Your task to perform on an android device: What is the recent news? Image 0: 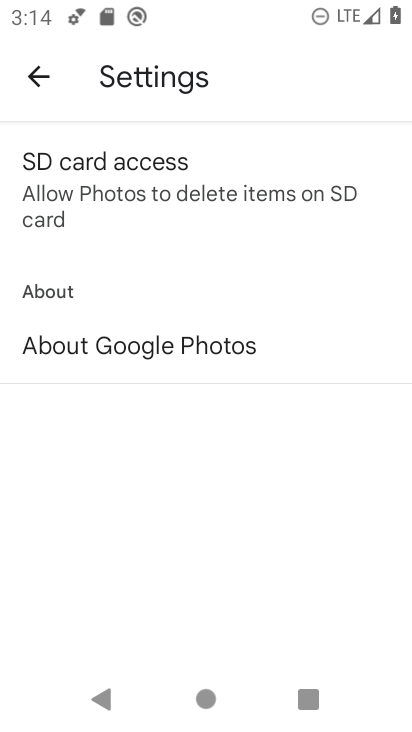
Step 0: press home button
Your task to perform on an android device: What is the recent news? Image 1: 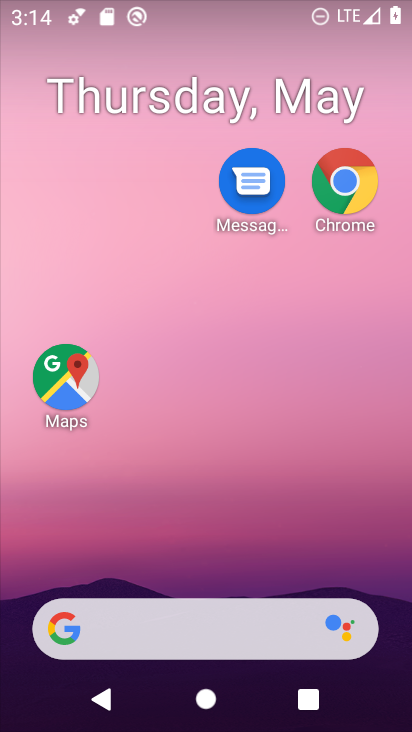
Step 1: drag from (215, 617) to (328, 28)
Your task to perform on an android device: What is the recent news? Image 2: 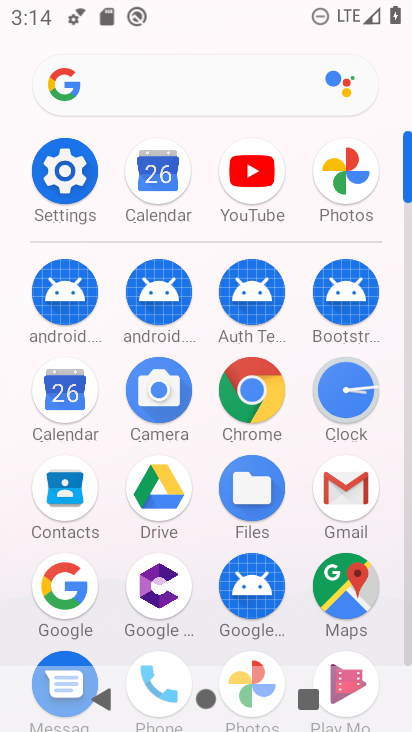
Step 2: click (254, 396)
Your task to perform on an android device: What is the recent news? Image 3: 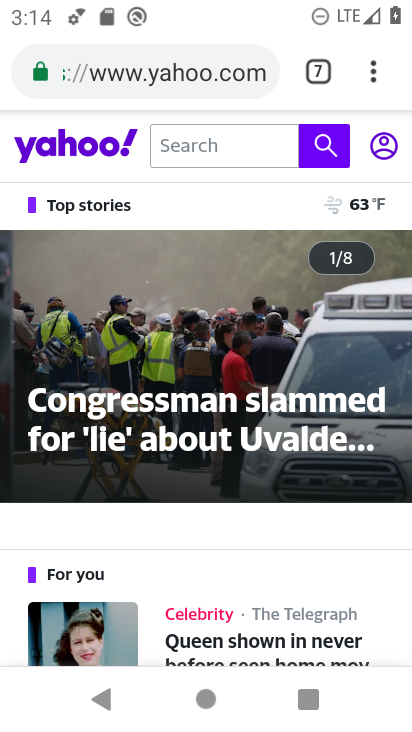
Step 3: drag from (367, 53) to (147, 139)
Your task to perform on an android device: What is the recent news? Image 4: 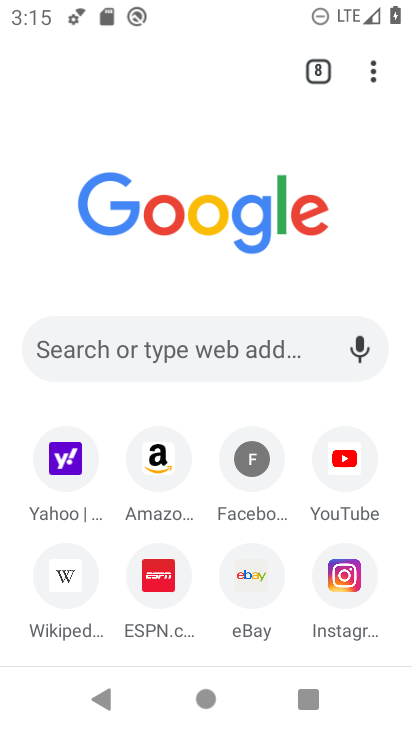
Step 4: click (231, 349)
Your task to perform on an android device: What is the recent news? Image 5: 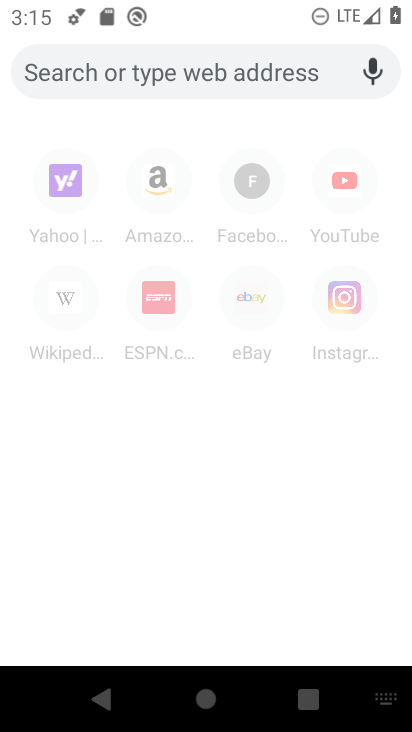
Step 5: type "recent news"
Your task to perform on an android device: What is the recent news? Image 6: 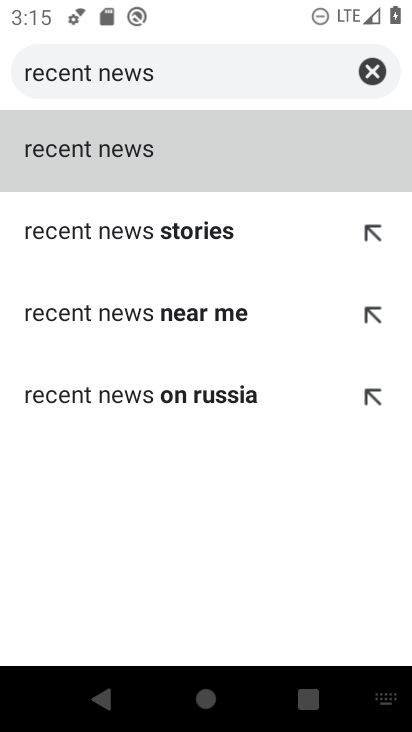
Step 6: click (97, 157)
Your task to perform on an android device: What is the recent news? Image 7: 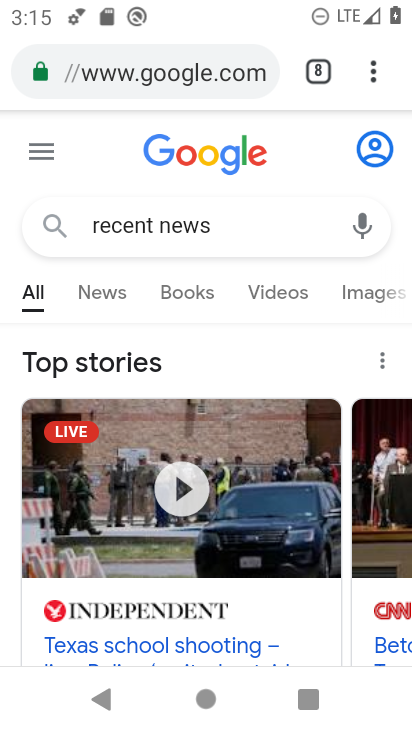
Step 7: task complete